Your task to perform on an android device: see tabs open on other devices in the chrome app Image 0: 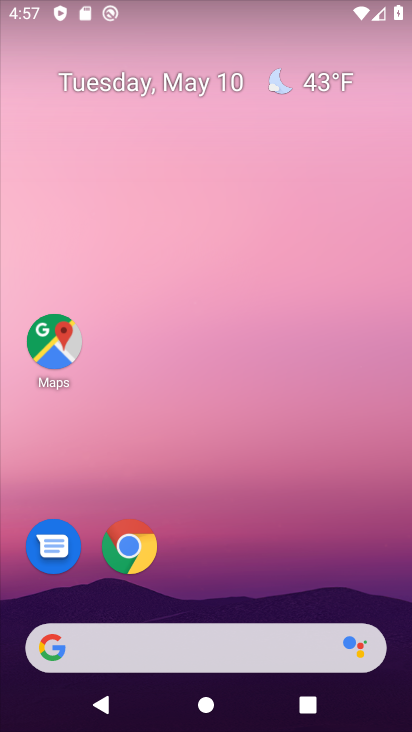
Step 0: drag from (326, 568) to (91, 132)
Your task to perform on an android device: see tabs open on other devices in the chrome app Image 1: 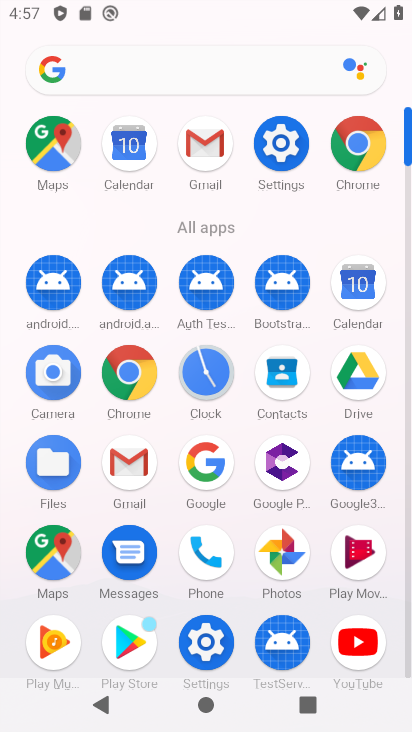
Step 1: click (350, 154)
Your task to perform on an android device: see tabs open on other devices in the chrome app Image 2: 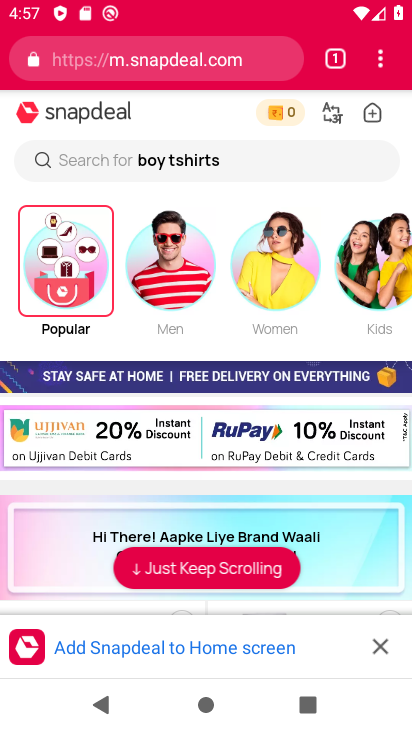
Step 2: drag from (378, 53) to (166, 274)
Your task to perform on an android device: see tabs open on other devices in the chrome app Image 3: 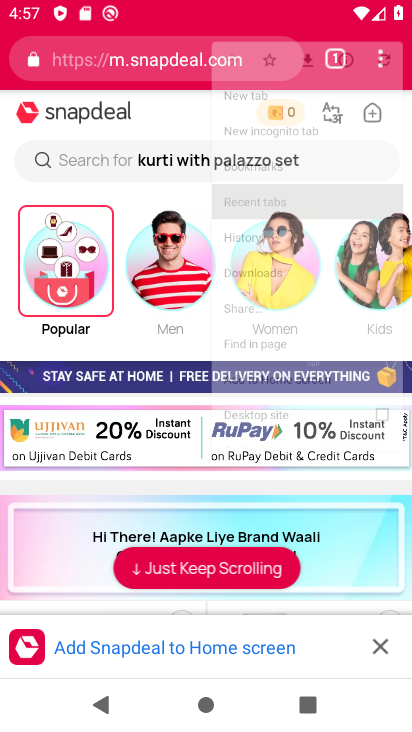
Step 3: click (169, 281)
Your task to perform on an android device: see tabs open on other devices in the chrome app Image 4: 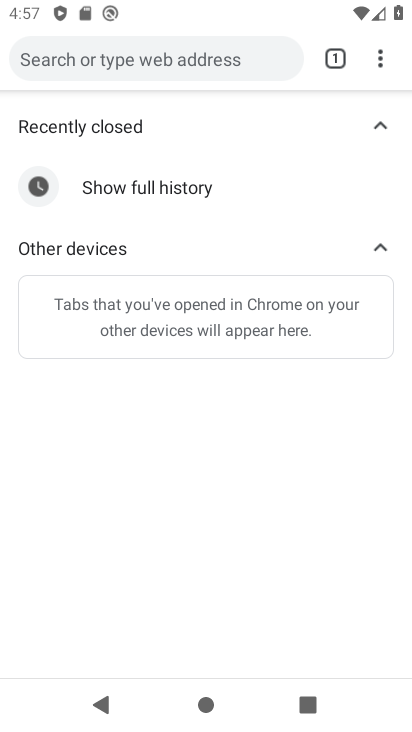
Step 4: task complete